Your task to perform on an android device: check google app version Image 0: 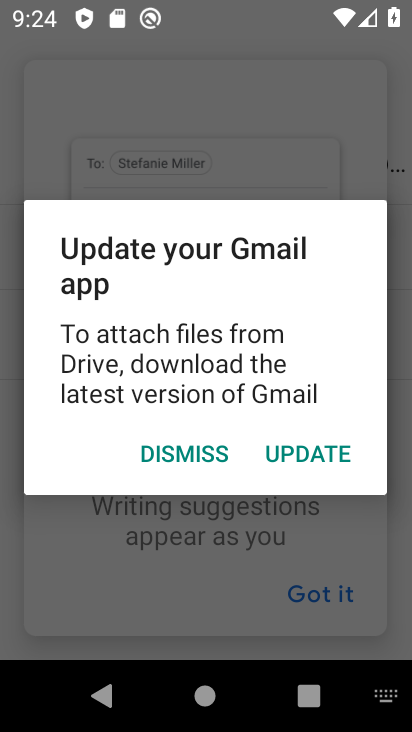
Step 0: press home button
Your task to perform on an android device: check google app version Image 1: 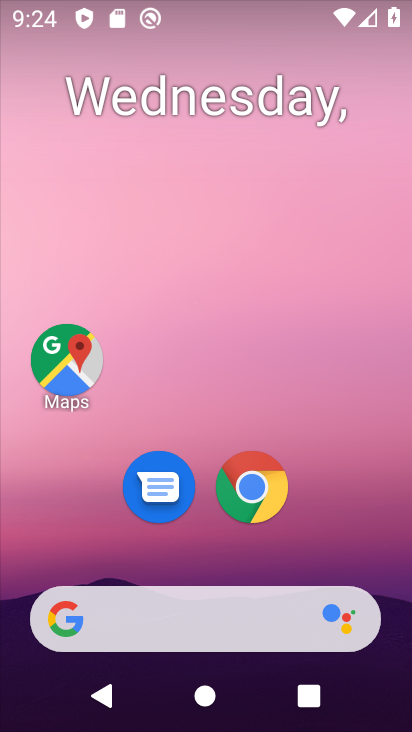
Step 1: drag from (246, 703) to (294, 0)
Your task to perform on an android device: check google app version Image 2: 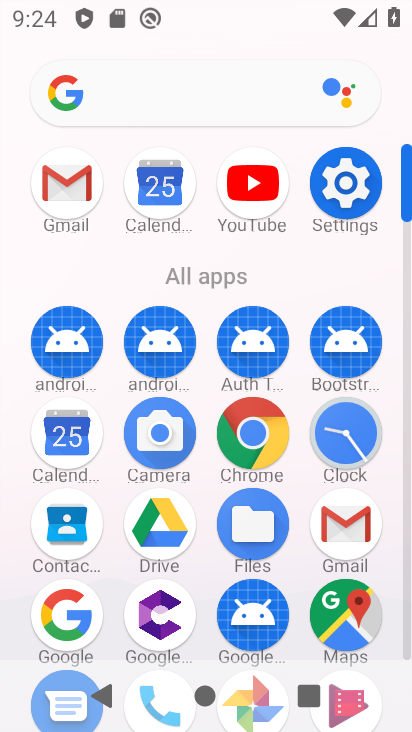
Step 2: click (76, 623)
Your task to perform on an android device: check google app version Image 3: 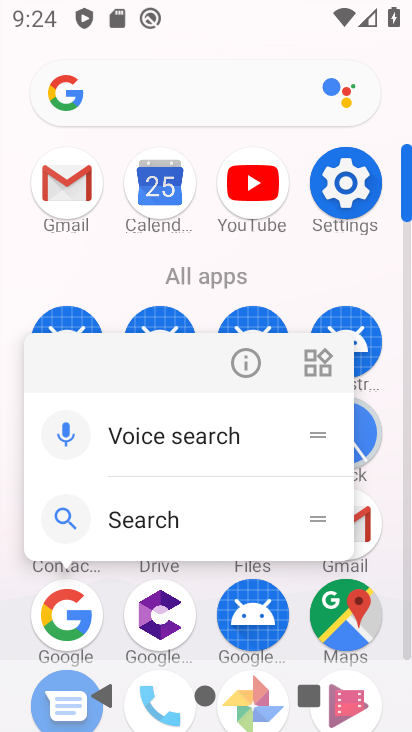
Step 3: click (260, 359)
Your task to perform on an android device: check google app version Image 4: 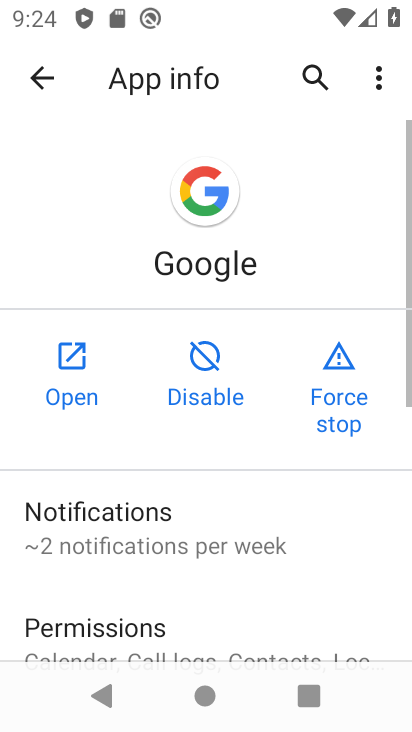
Step 4: drag from (292, 633) to (302, 37)
Your task to perform on an android device: check google app version Image 5: 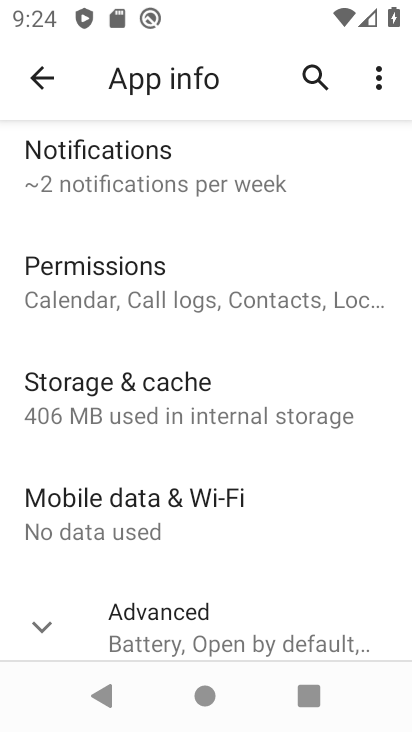
Step 5: drag from (236, 593) to (251, 29)
Your task to perform on an android device: check google app version Image 6: 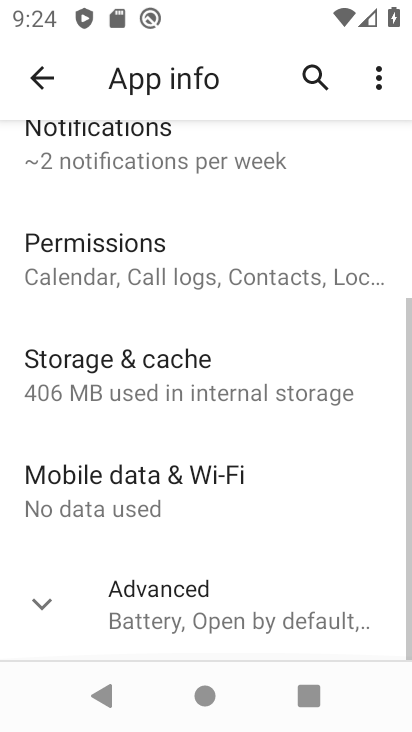
Step 6: click (234, 630)
Your task to perform on an android device: check google app version Image 7: 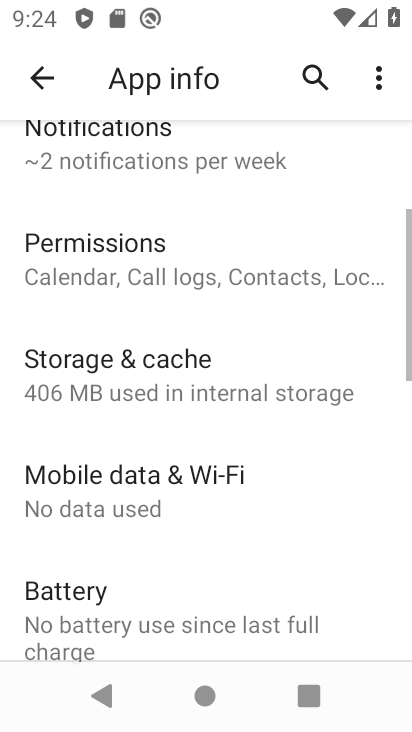
Step 7: task complete